Your task to perform on an android device: Open internet settings Image 0: 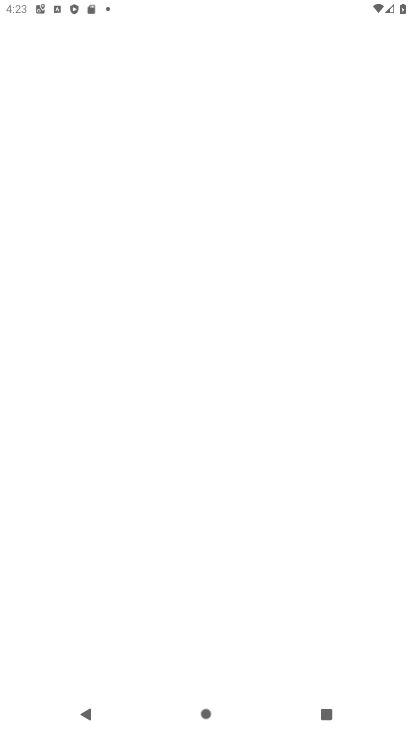
Step 0: press home button
Your task to perform on an android device: Open internet settings Image 1: 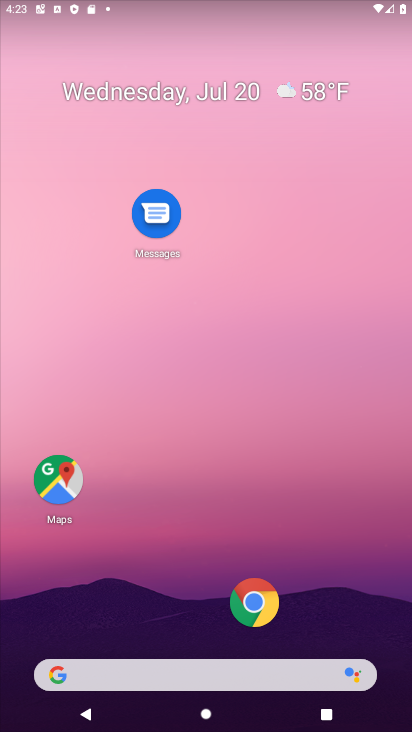
Step 1: drag from (173, 481) to (240, 24)
Your task to perform on an android device: Open internet settings Image 2: 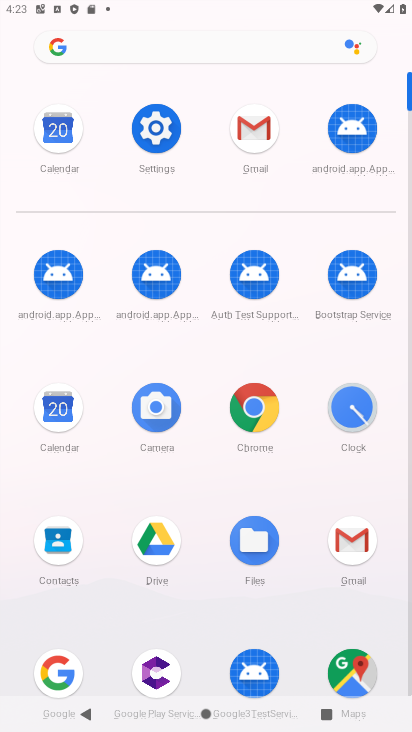
Step 2: click (160, 127)
Your task to perform on an android device: Open internet settings Image 3: 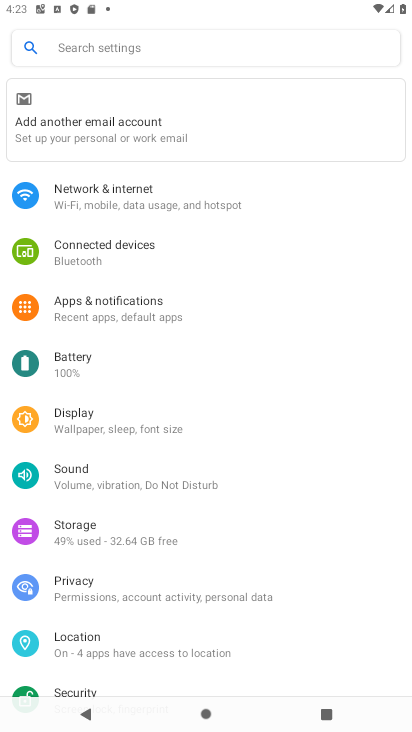
Step 3: click (135, 192)
Your task to perform on an android device: Open internet settings Image 4: 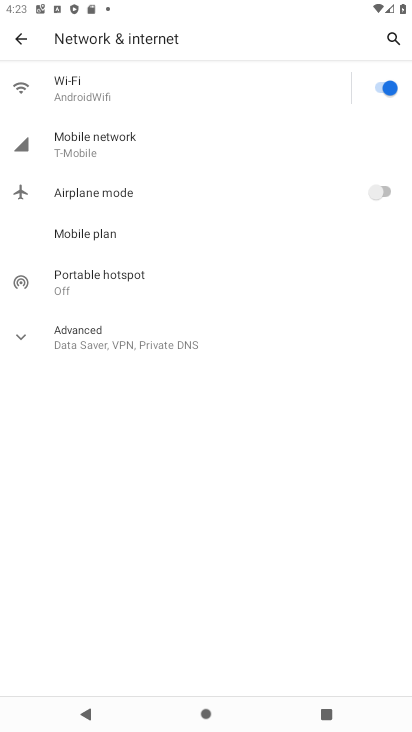
Step 4: task complete